Your task to perform on an android device: add a contact Image 0: 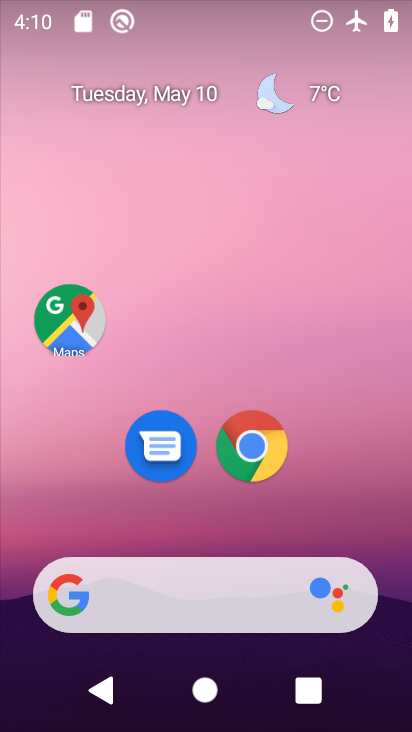
Step 0: drag from (286, 512) to (257, 120)
Your task to perform on an android device: add a contact Image 1: 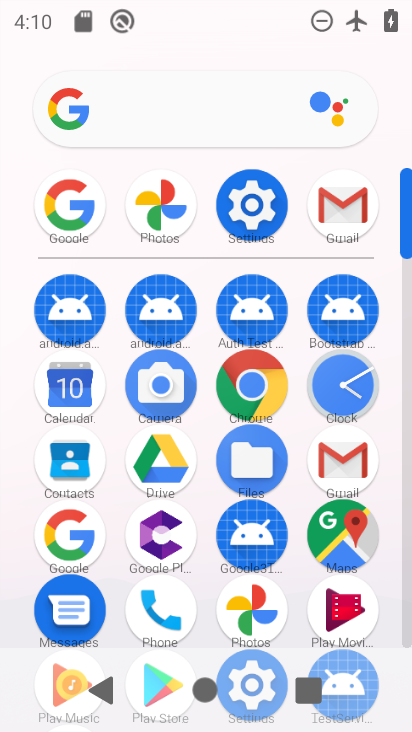
Step 1: click (79, 454)
Your task to perform on an android device: add a contact Image 2: 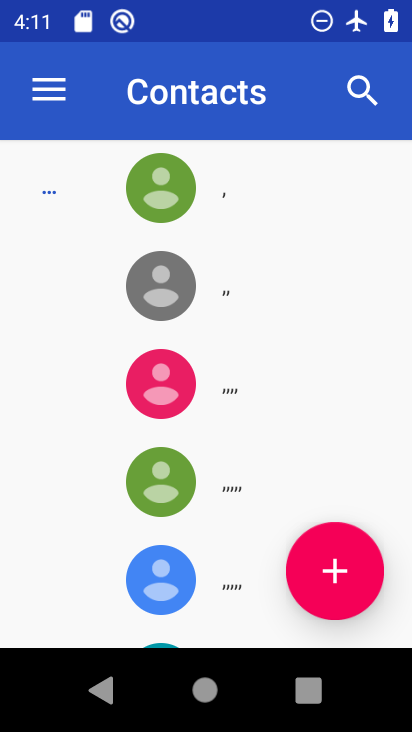
Step 2: click (334, 566)
Your task to perform on an android device: add a contact Image 3: 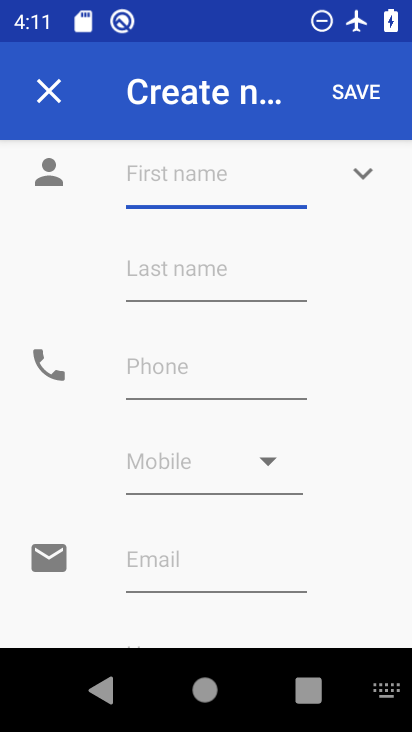
Step 3: type "dfasdfa"
Your task to perform on an android device: add a contact Image 4: 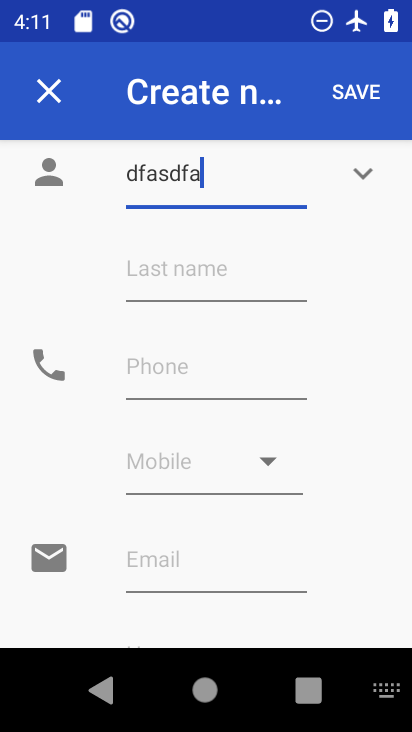
Step 4: click (260, 286)
Your task to perform on an android device: add a contact Image 5: 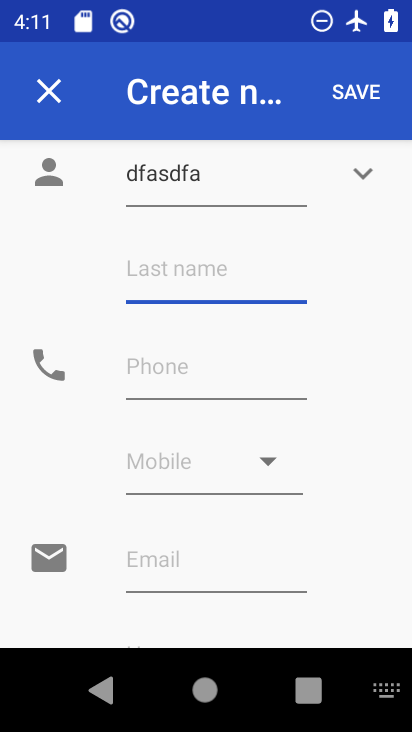
Step 5: type "dfsdfsa"
Your task to perform on an android device: add a contact Image 6: 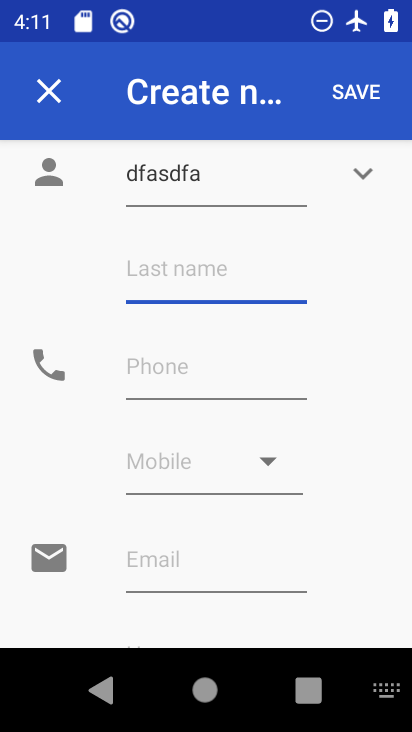
Step 6: click (215, 392)
Your task to perform on an android device: add a contact Image 7: 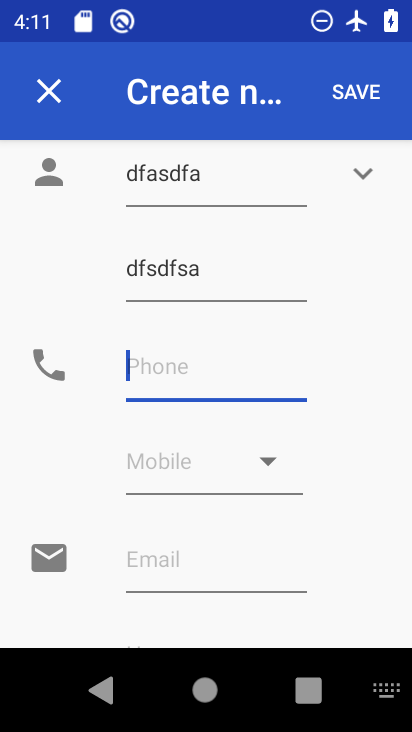
Step 7: type "534563456"
Your task to perform on an android device: add a contact Image 8: 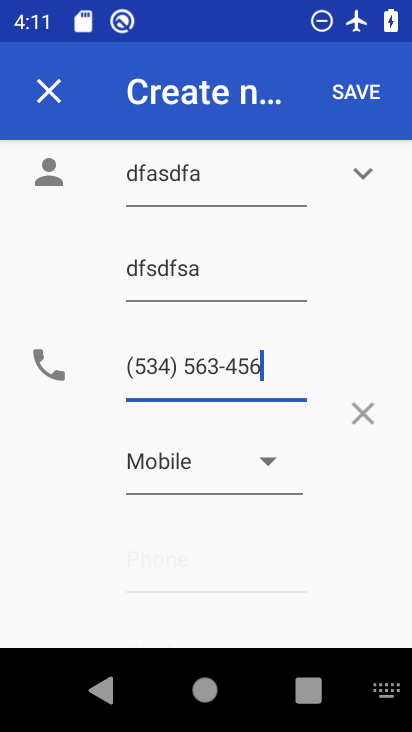
Step 8: type ""
Your task to perform on an android device: add a contact Image 9: 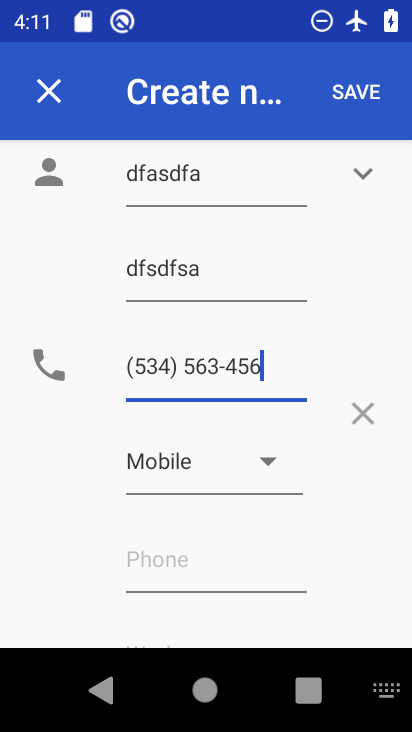
Step 9: click (366, 90)
Your task to perform on an android device: add a contact Image 10: 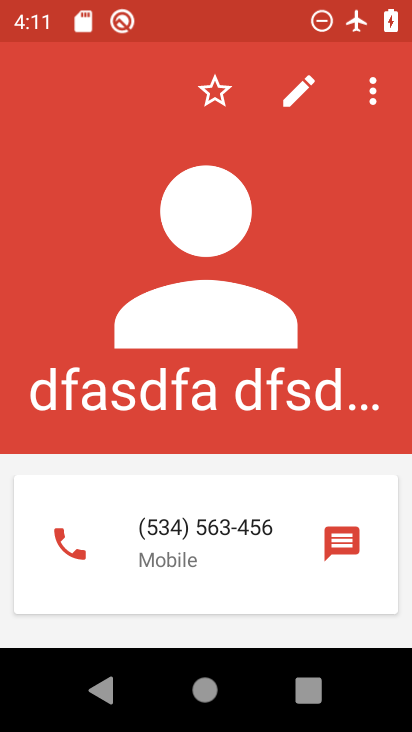
Step 10: task complete